Your task to perform on an android device: open wifi settings Image 0: 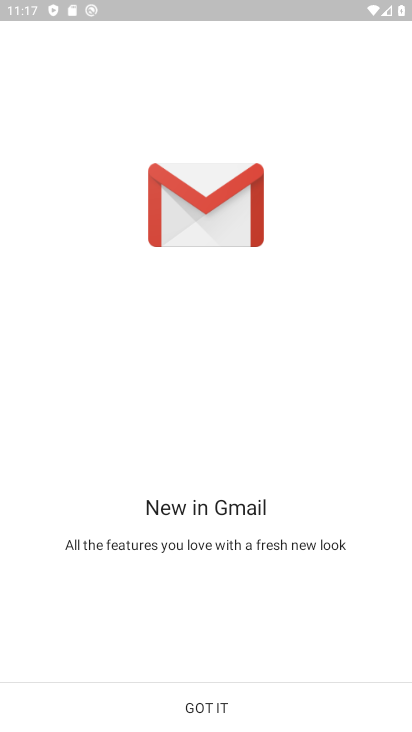
Step 0: press home button
Your task to perform on an android device: open wifi settings Image 1: 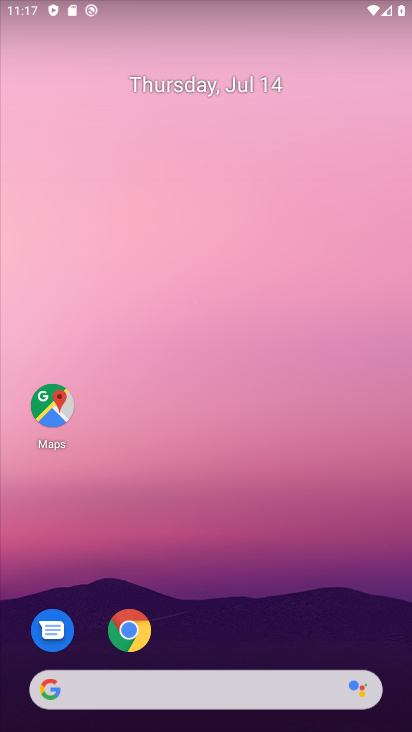
Step 1: drag from (236, 631) to (310, 92)
Your task to perform on an android device: open wifi settings Image 2: 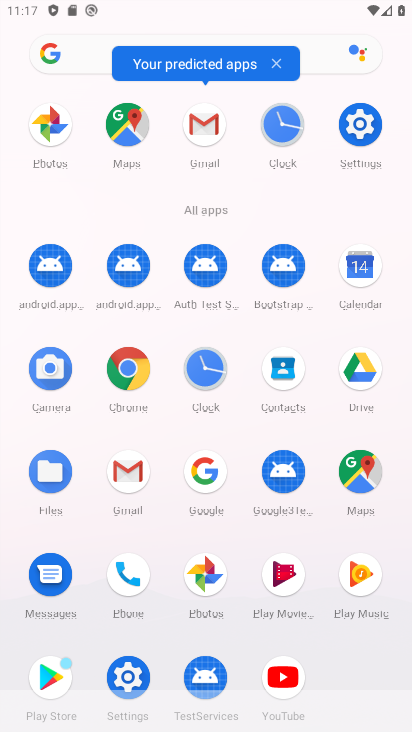
Step 2: click (119, 711)
Your task to perform on an android device: open wifi settings Image 3: 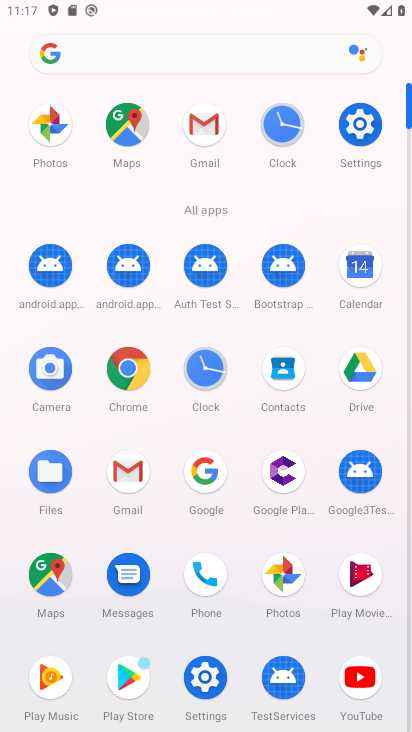
Step 3: click (204, 676)
Your task to perform on an android device: open wifi settings Image 4: 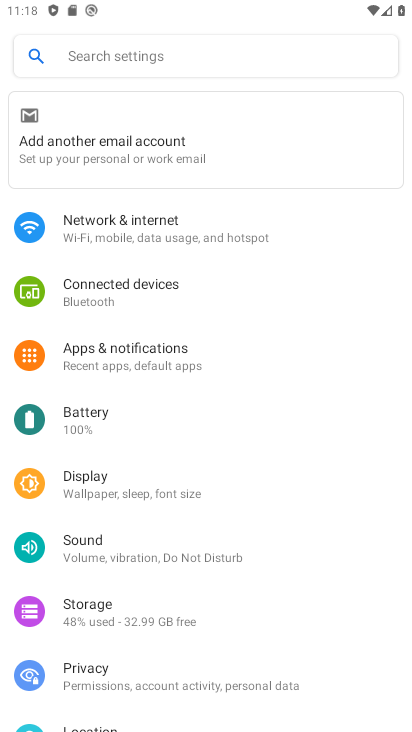
Step 4: click (188, 227)
Your task to perform on an android device: open wifi settings Image 5: 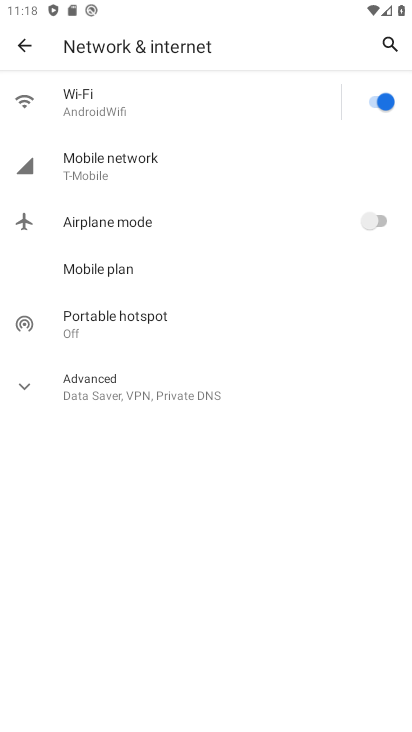
Step 5: click (158, 104)
Your task to perform on an android device: open wifi settings Image 6: 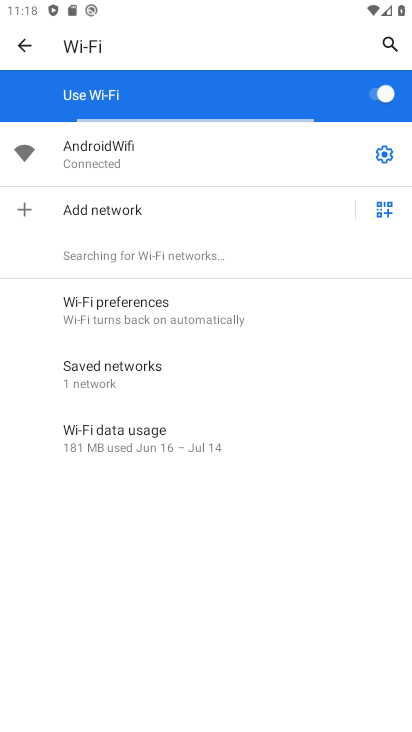
Step 6: task complete